Your task to perform on an android device: change keyboard looks Image 0: 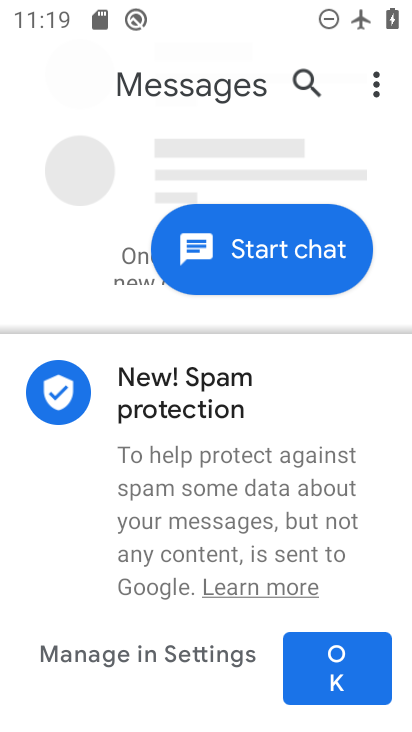
Step 0: press home button
Your task to perform on an android device: change keyboard looks Image 1: 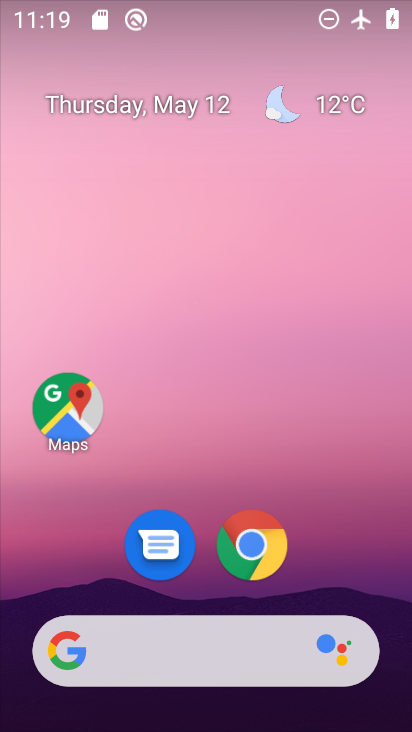
Step 1: drag from (214, 594) to (246, 22)
Your task to perform on an android device: change keyboard looks Image 2: 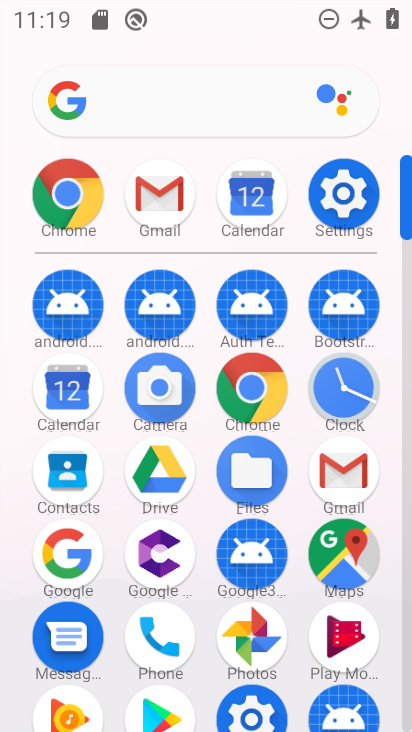
Step 2: click (340, 193)
Your task to perform on an android device: change keyboard looks Image 3: 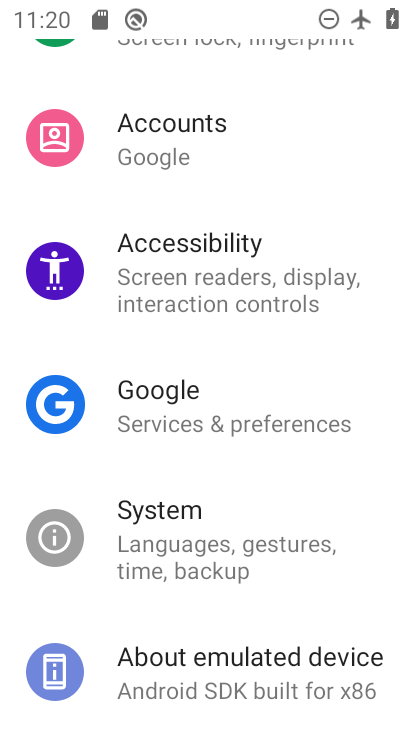
Step 3: drag from (218, 624) to (258, 292)
Your task to perform on an android device: change keyboard looks Image 4: 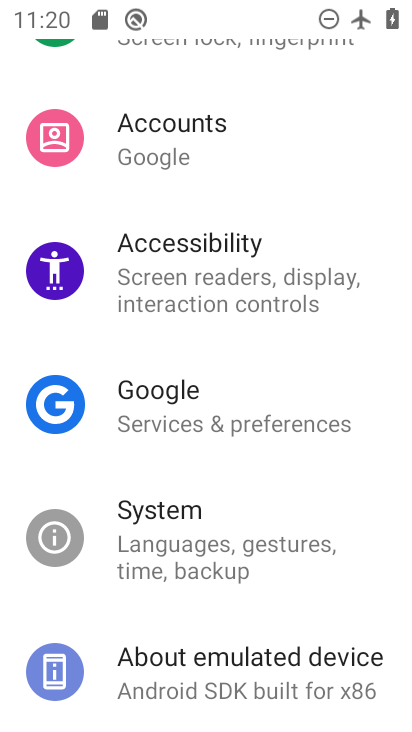
Step 4: click (247, 561)
Your task to perform on an android device: change keyboard looks Image 5: 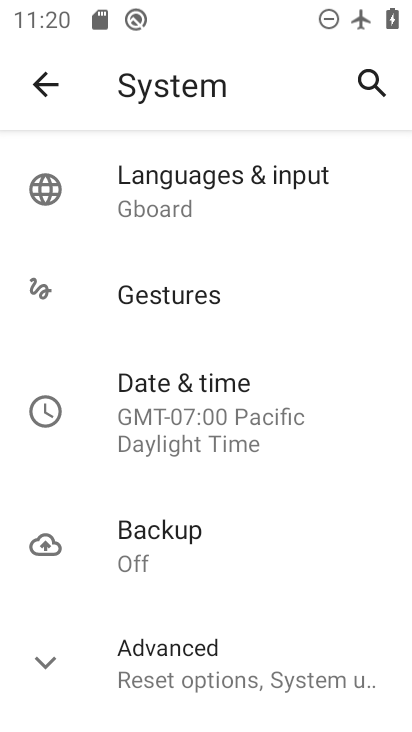
Step 5: click (91, 191)
Your task to perform on an android device: change keyboard looks Image 6: 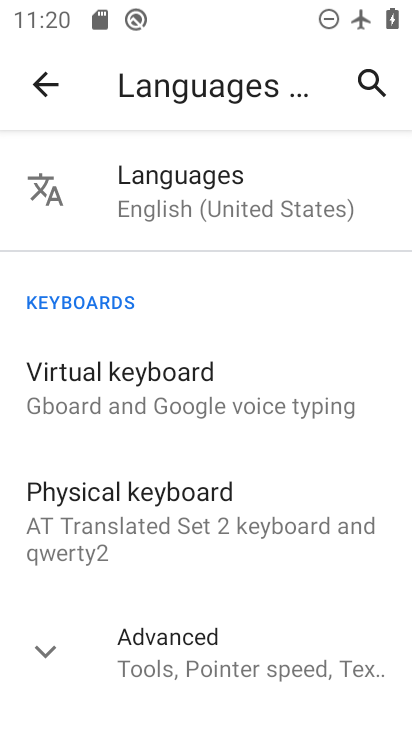
Step 6: click (154, 378)
Your task to perform on an android device: change keyboard looks Image 7: 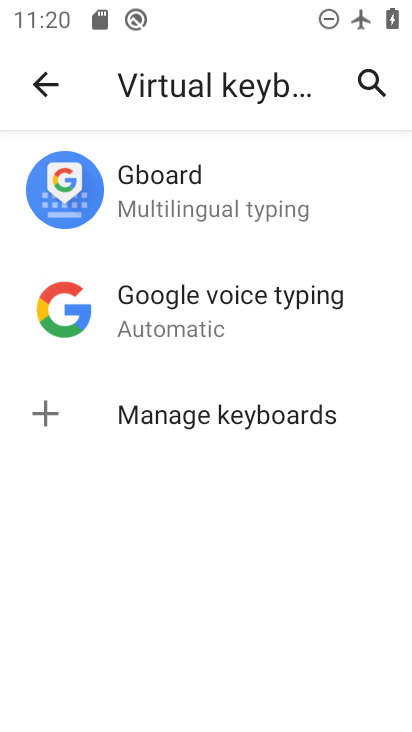
Step 7: click (214, 176)
Your task to perform on an android device: change keyboard looks Image 8: 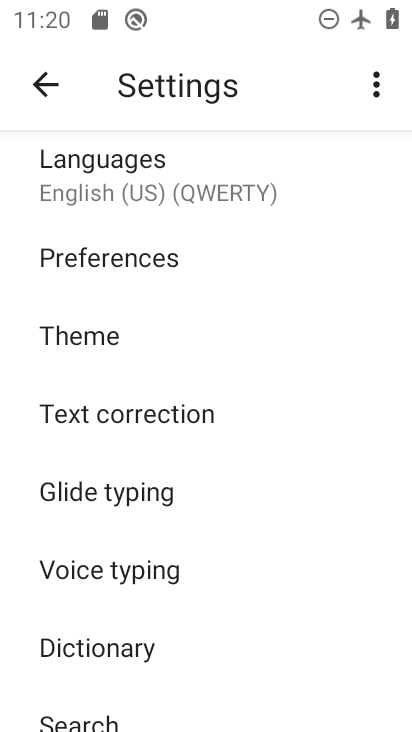
Step 8: click (132, 334)
Your task to perform on an android device: change keyboard looks Image 9: 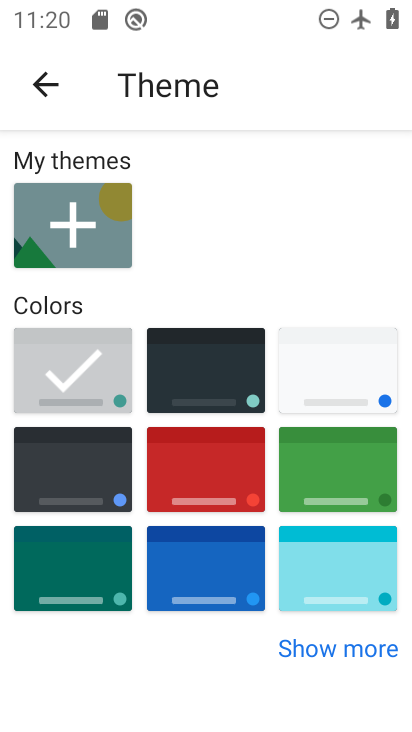
Step 9: click (211, 474)
Your task to perform on an android device: change keyboard looks Image 10: 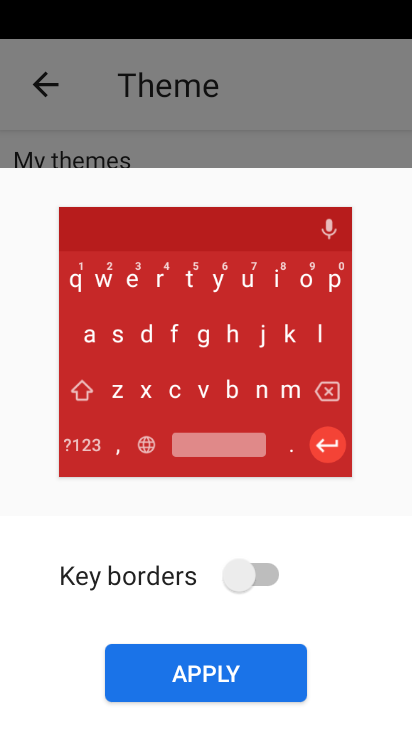
Step 10: click (203, 667)
Your task to perform on an android device: change keyboard looks Image 11: 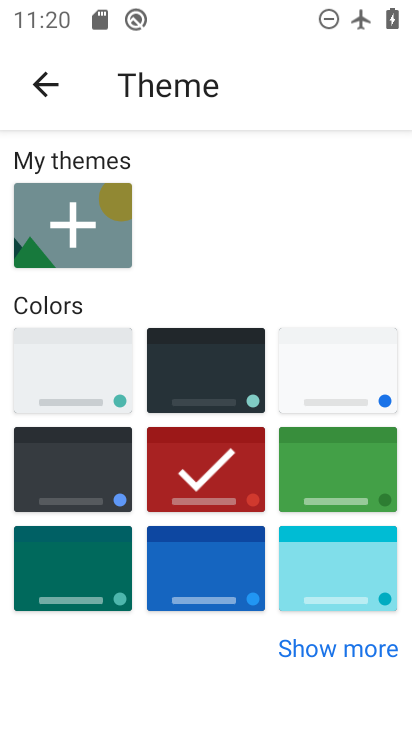
Step 11: task complete